Your task to perform on an android device: see tabs open on other devices in the chrome app Image 0: 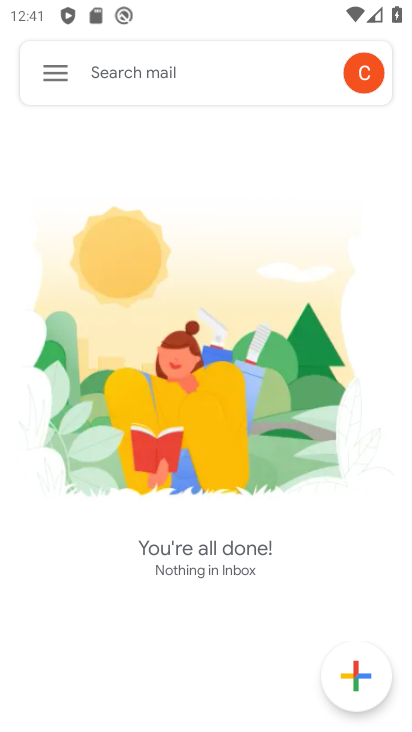
Step 0: press home button
Your task to perform on an android device: see tabs open on other devices in the chrome app Image 1: 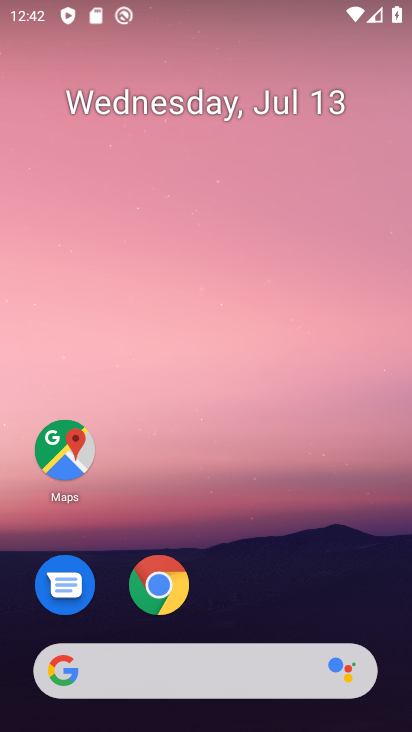
Step 1: click (169, 574)
Your task to perform on an android device: see tabs open on other devices in the chrome app Image 2: 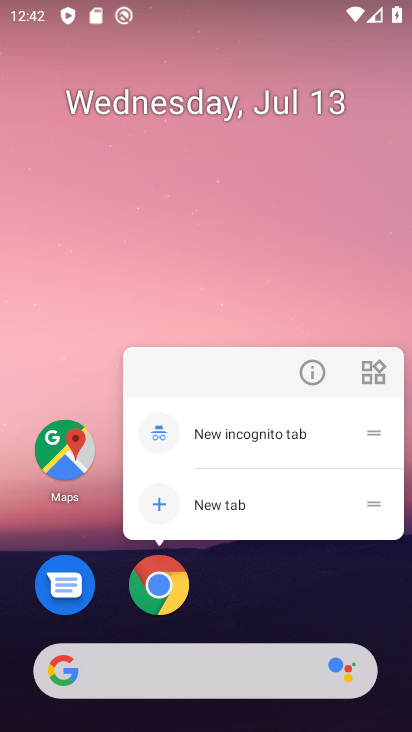
Step 2: click (163, 587)
Your task to perform on an android device: see tabs open on other devices in the chrome app Image 3: 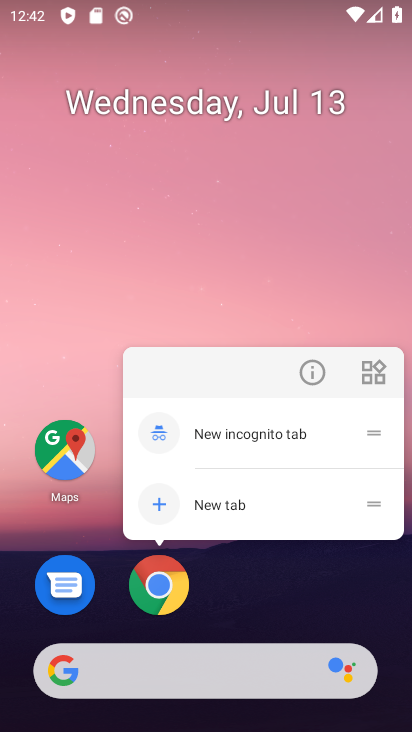
Step 3: click (152, 599)
Your task to perform on an android device: see tabs open on other devices in the chrome app Image 4: 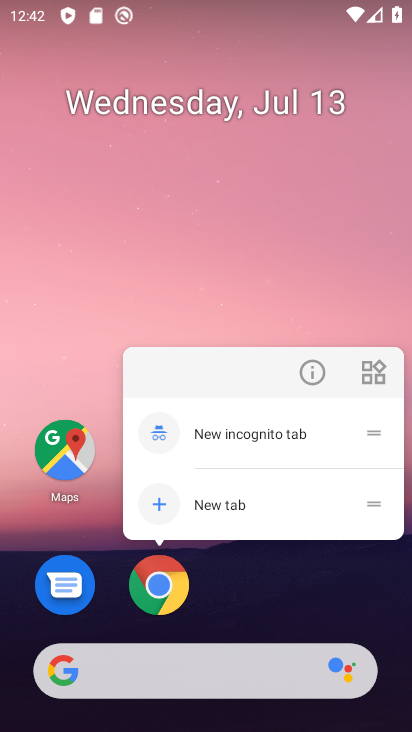
Step 4: click (154, 599)
Your task to perform on an android device: see tabs open on other devices in the chrome app Image 5: 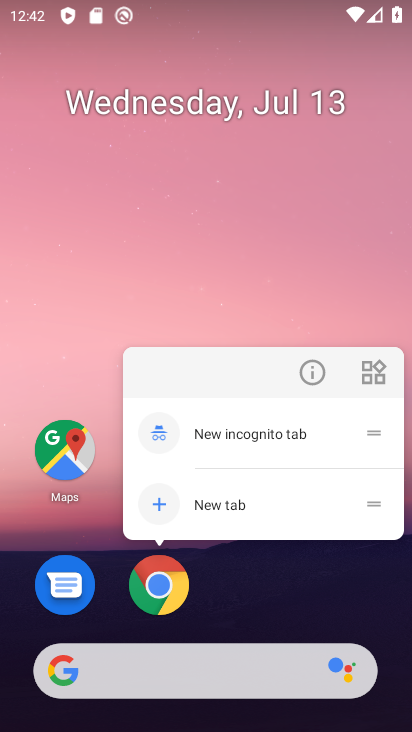
Step 5: click (160, 592)
Your task to perform on an android device: see tabs open on other devices in the chrome app Image 6: 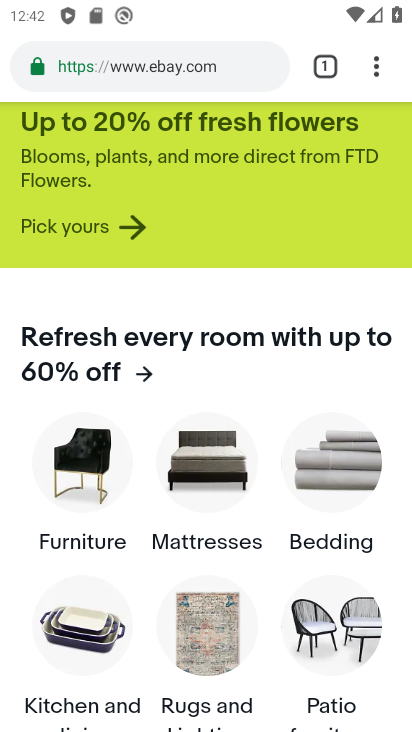
Step 6: task complete